Your task to perform on an android device: Show me popular games on the Play Store Image 0: 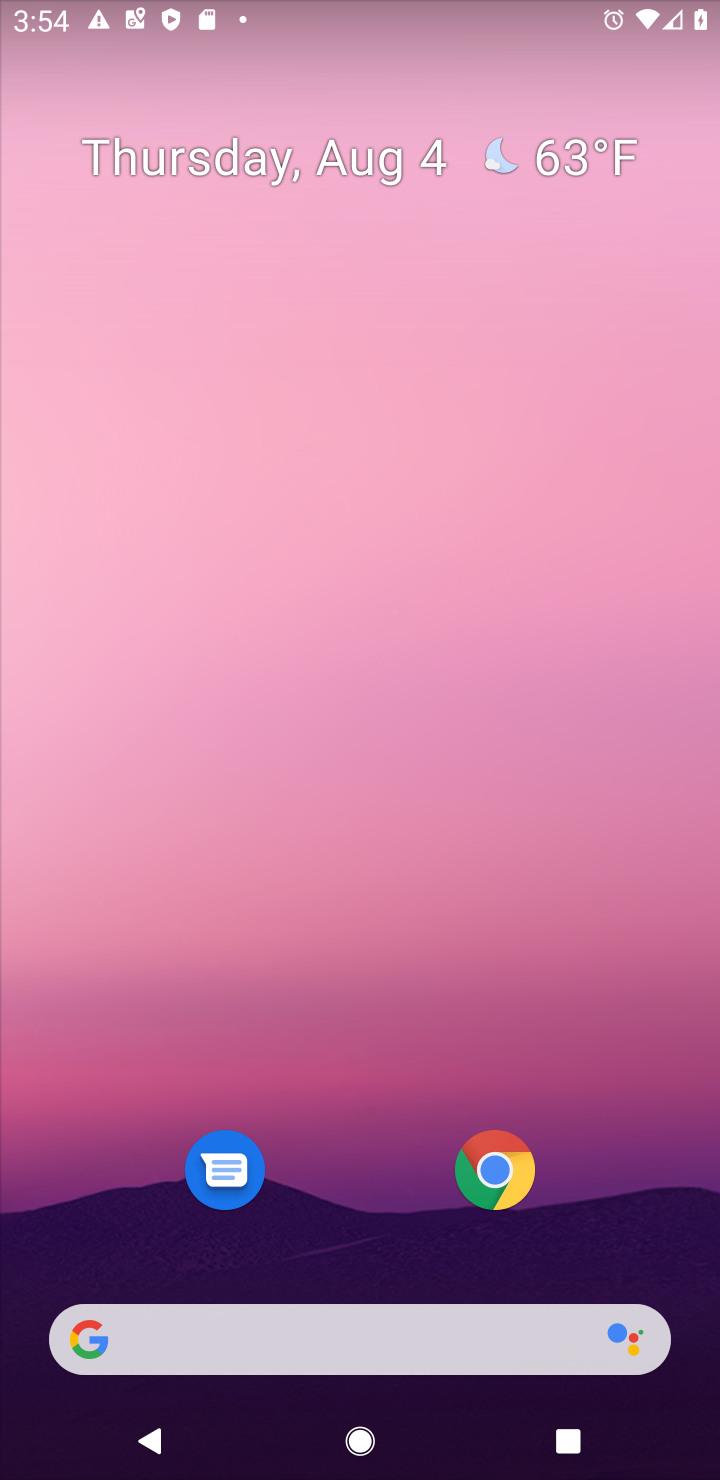
Step 0: drag from (637, 1232) to (539, 389)
Your task to perform on an android device: Show me popular games on the Play Store Image 1: 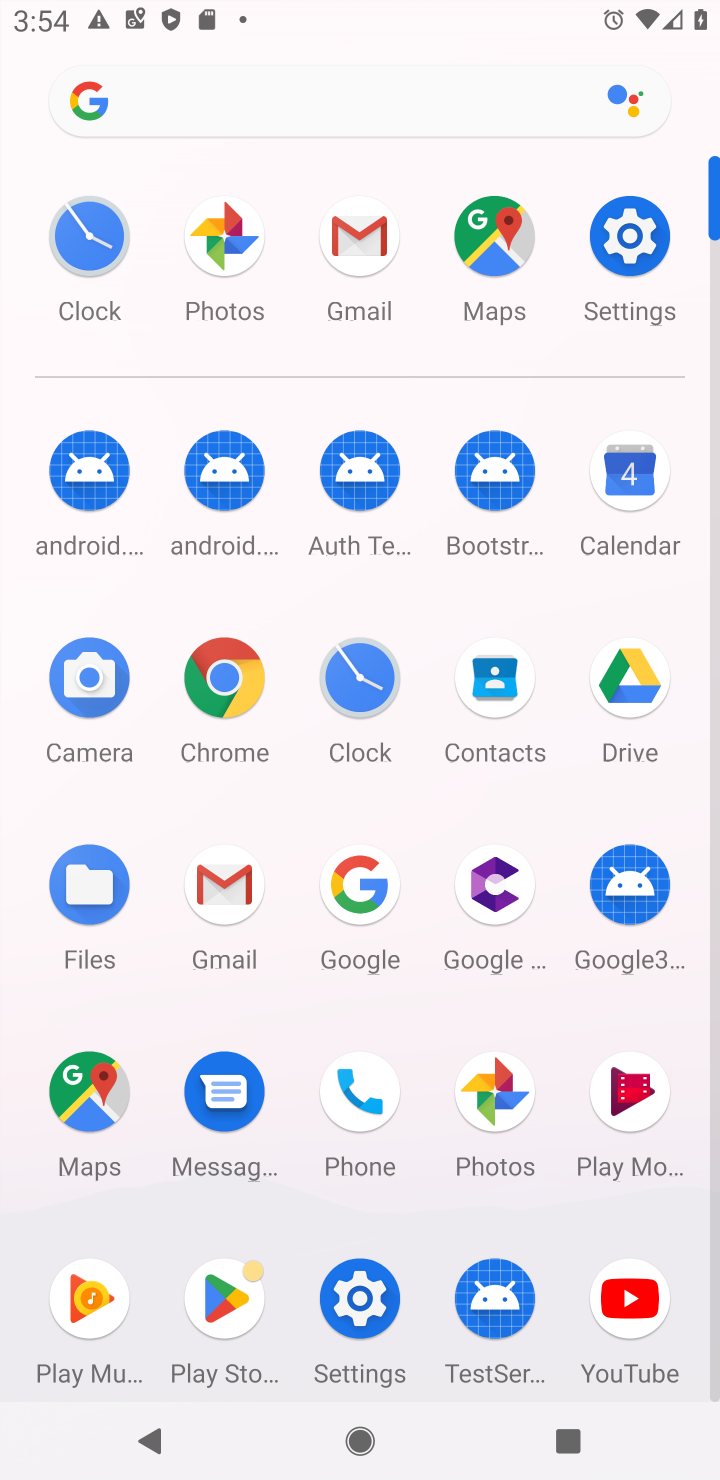
Step 1: click (232, 1298)
Your task to perform on an android device: Show me popular games on the Play Store Image 2: 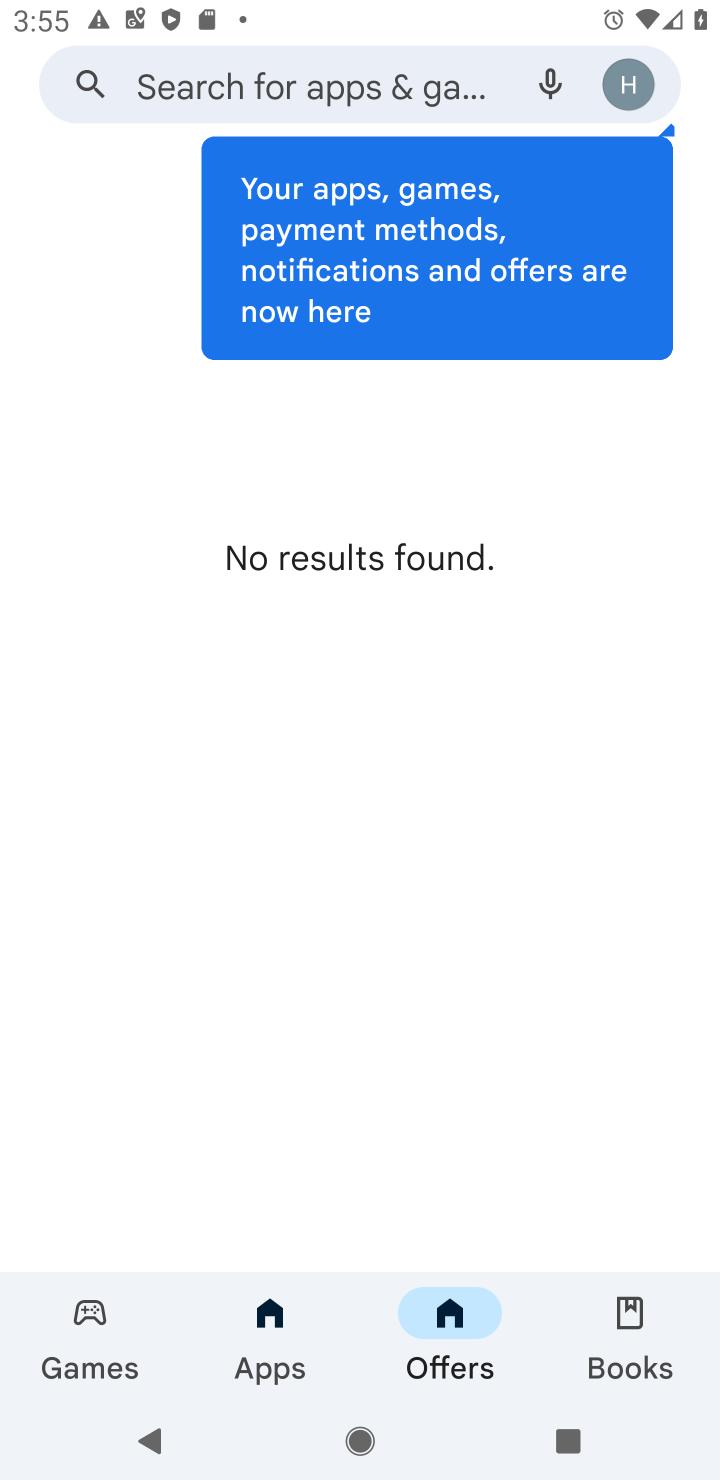
Step 2: click (99, 1330)
Your task to perform on an android device: Show me popular games on the Play Store Image 3: 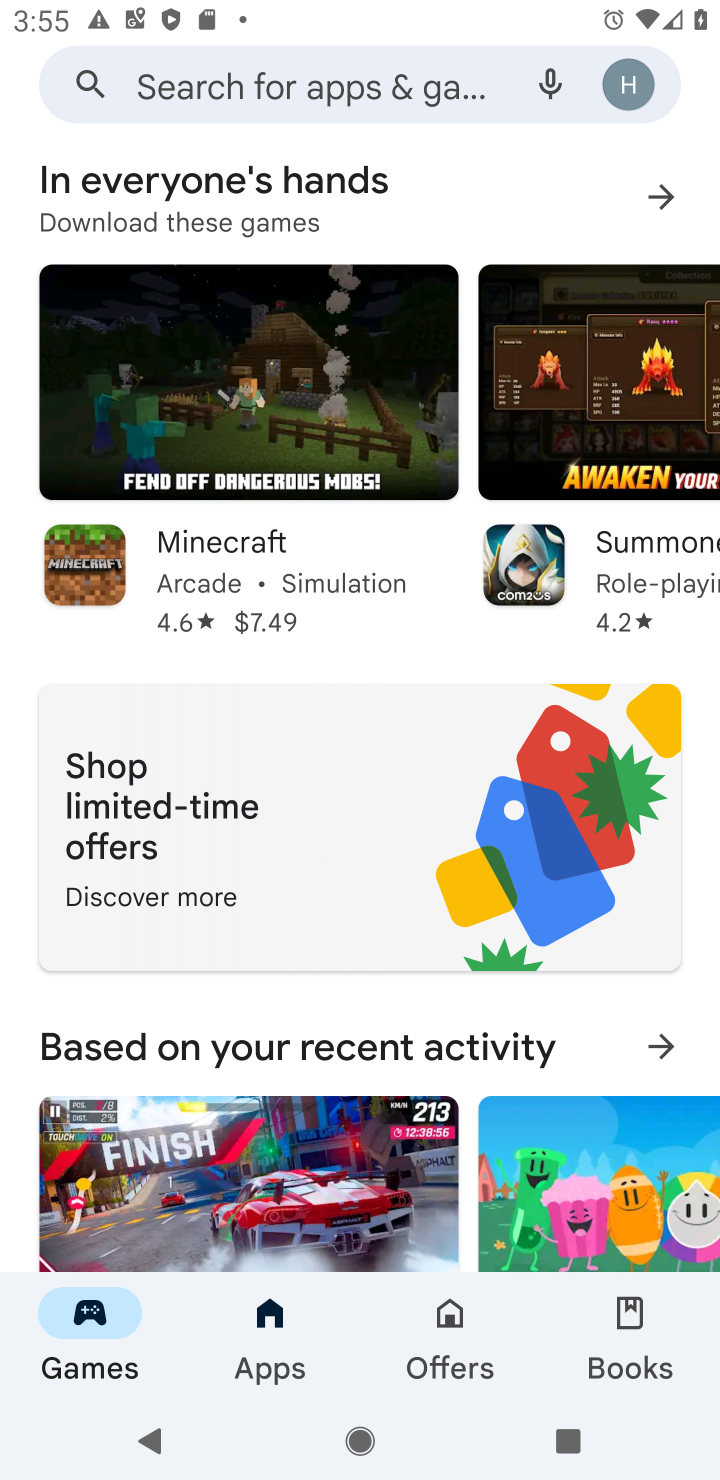
Step 3: drag from (452, 1080) to (406, 246)
Your task to perform on an android device: Show me popular games on the Play Store Image 4: 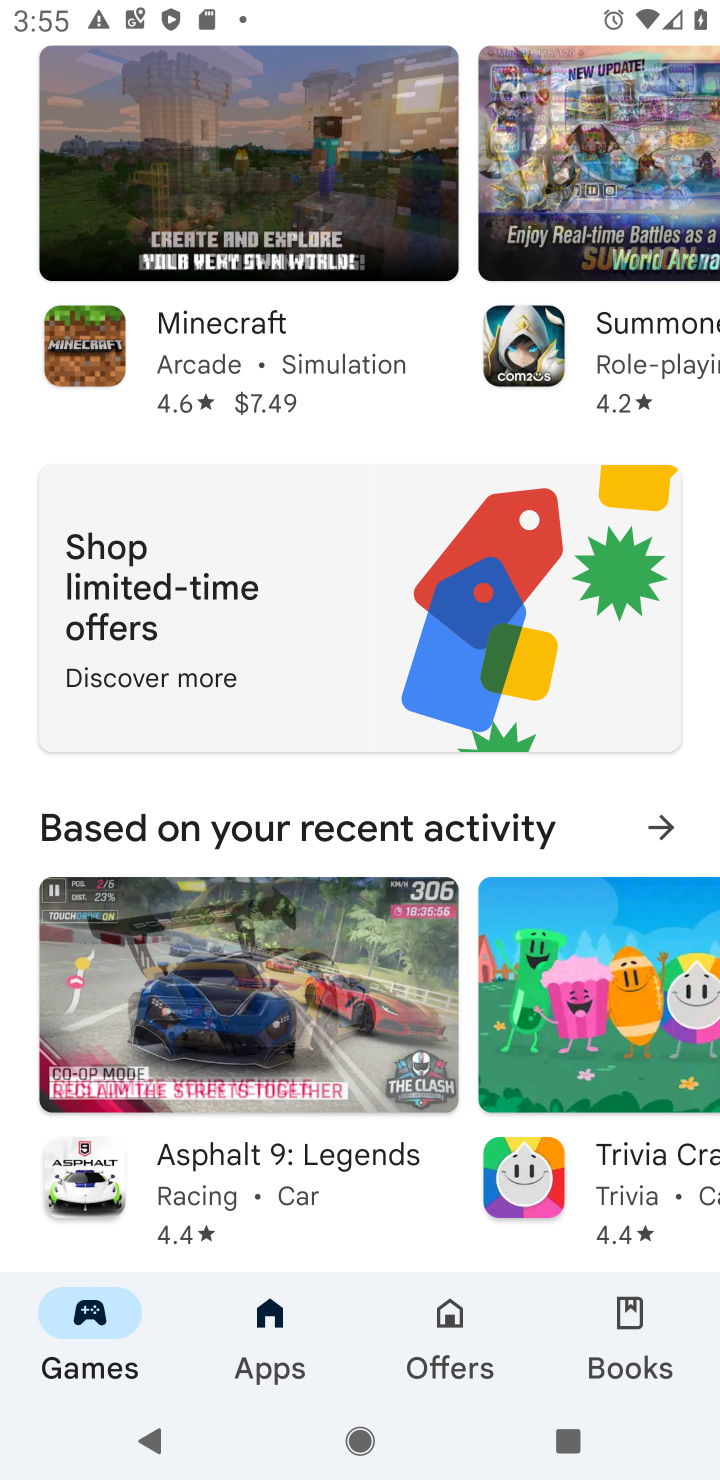
Step 4: drag from (455, 876) to (380, 274)
Your task to perform on an android device: Show me popular games on the Play Store Image 5: 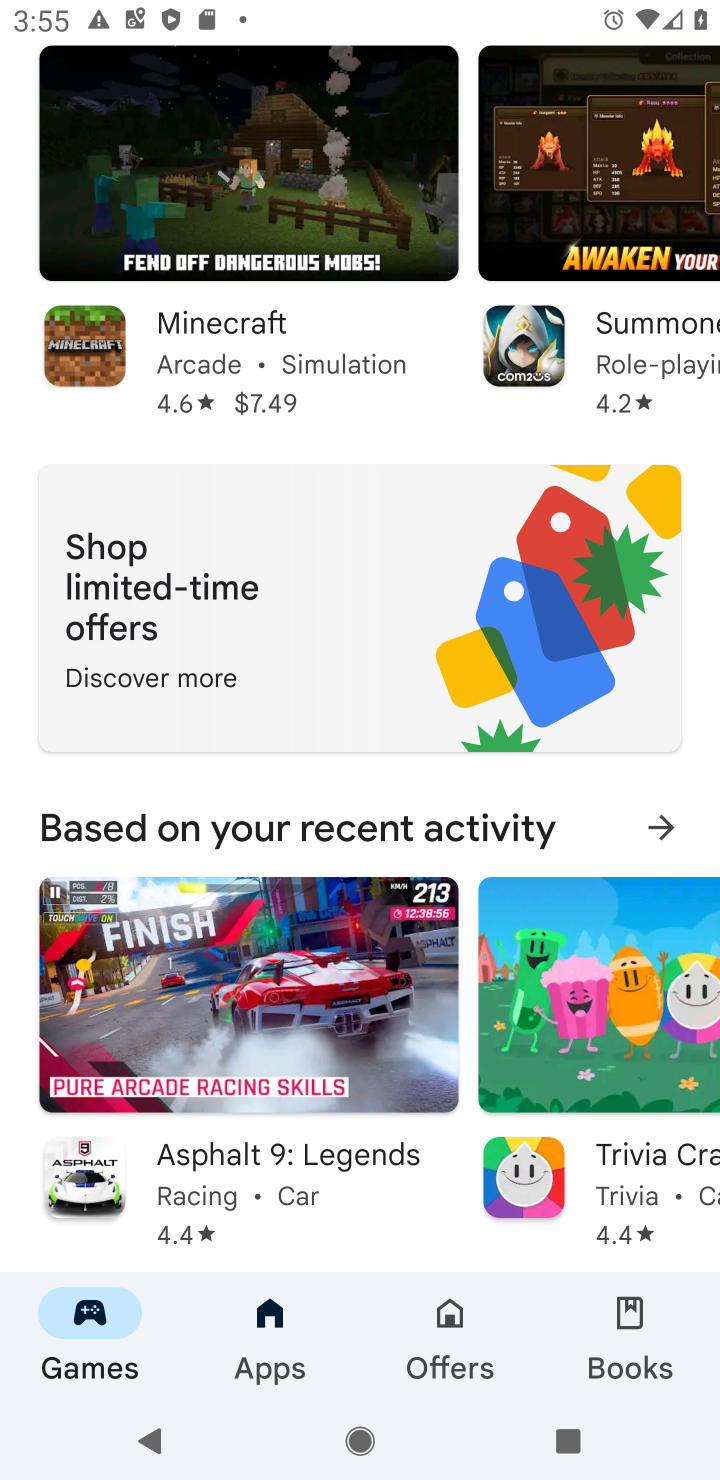
Step 5: drag from (460, 1159) to (367, 281)
Your task to perform on an android device: Show me popular games on the Play Store Image 6: 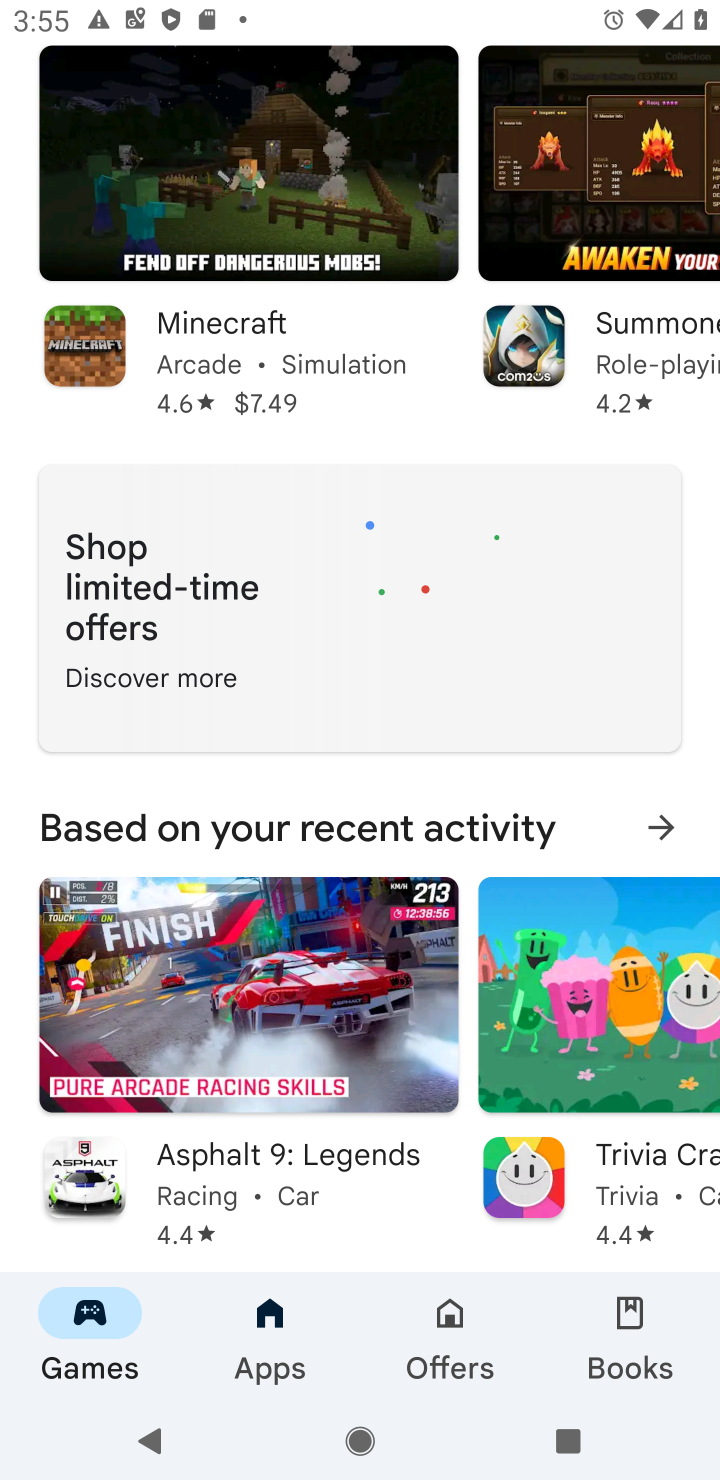
Step 6: drag from (367, 285) to (349, 734)
Your task to perform on an android device: Show me popular games on the Play Store Image 7: 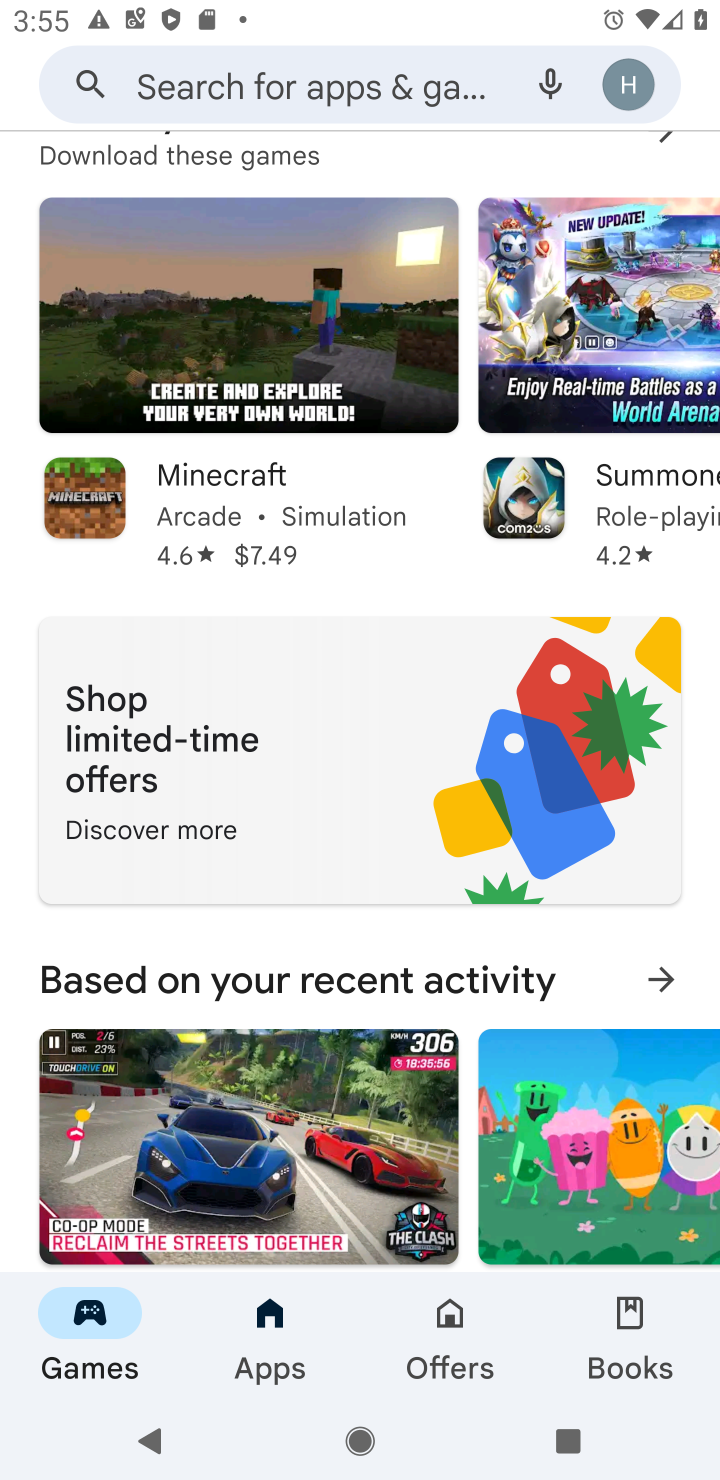
Step 7: drag from (477, 204) to (426, 865)
Your task to perform on an android device: Show me popular games on the Play Store Image 8: 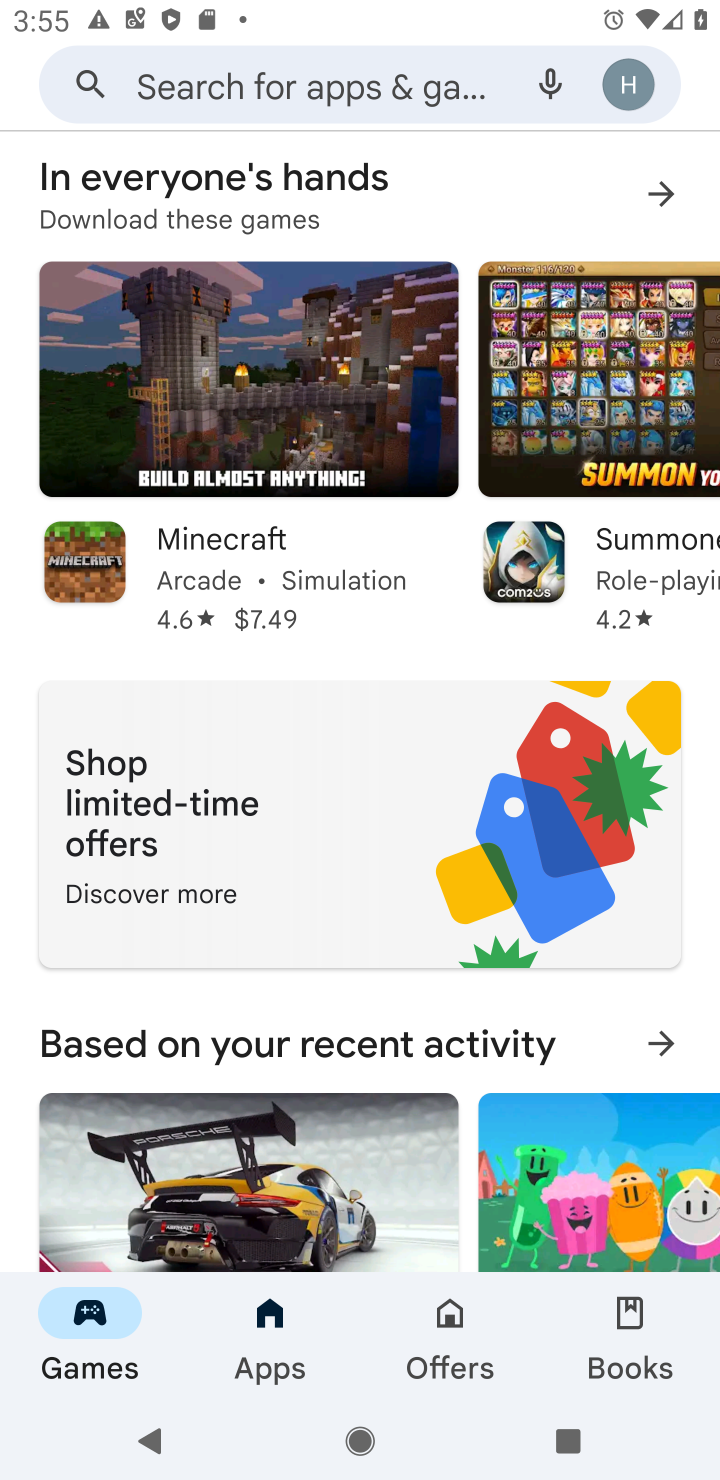
Step 8: drag from (460, 268) to (432, 980)
Your task to perform on an android device: Show me popular games on the Play Store Image 9: 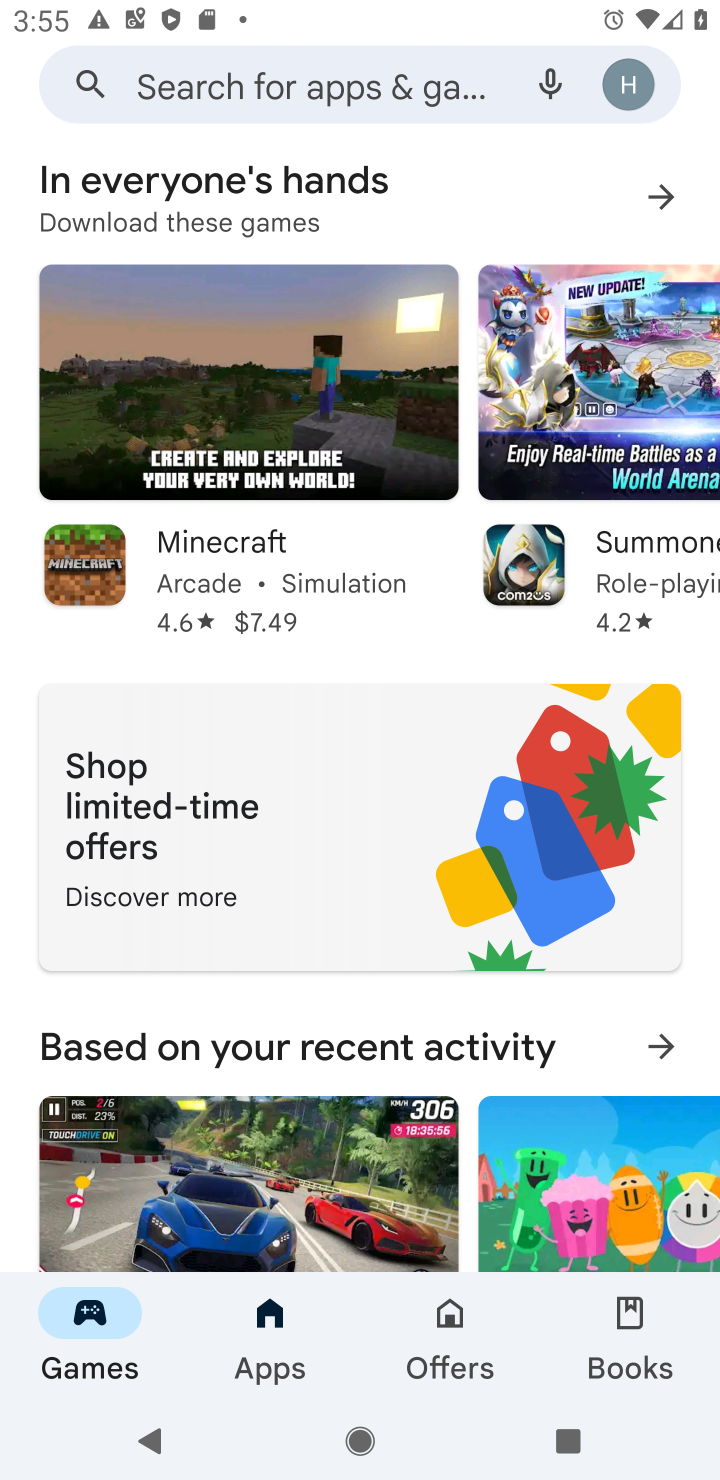
Step 9: click (261, 1352)
Your task to perform on an android device: Show me popular games on the Play Store Image 10: 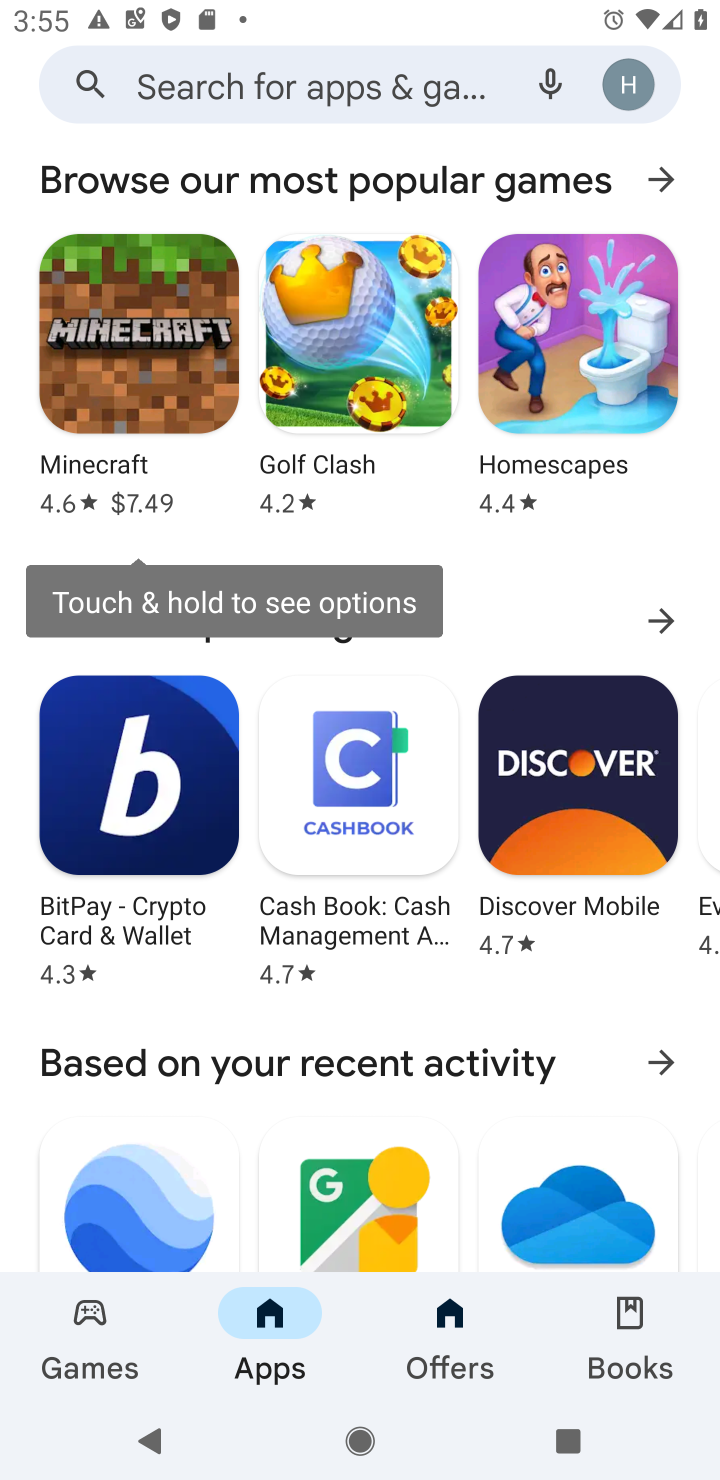
Step 10: click (653, 179)
Your task to perform on an android device: Show me popular games on the Play Store Image 11: 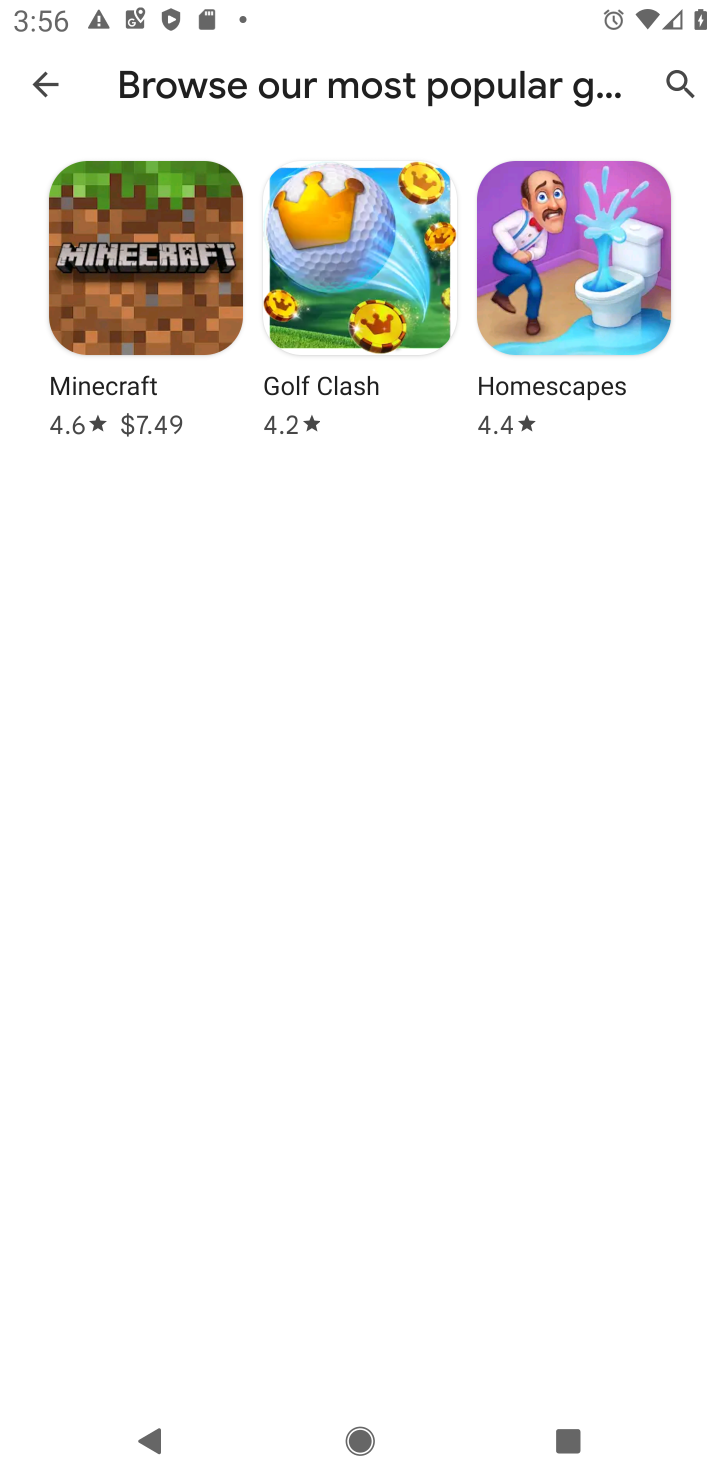
Step 11: task complete